Your task to perform on an android device: toggle sleep mode Image 0: 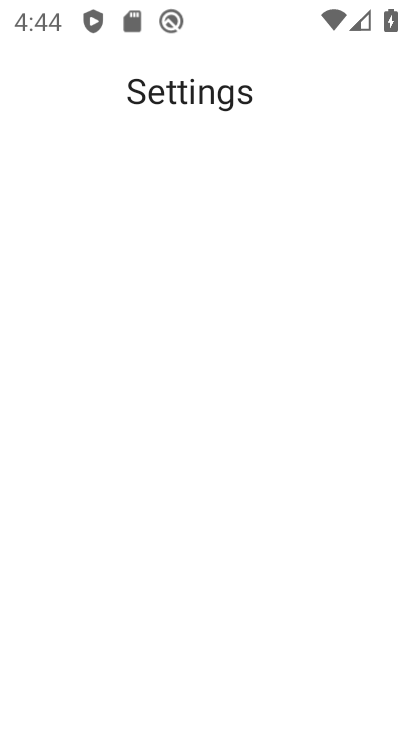
Step 0: click (95, 388)
Your task to perform on an android device: toggle sleep mode Image 1: 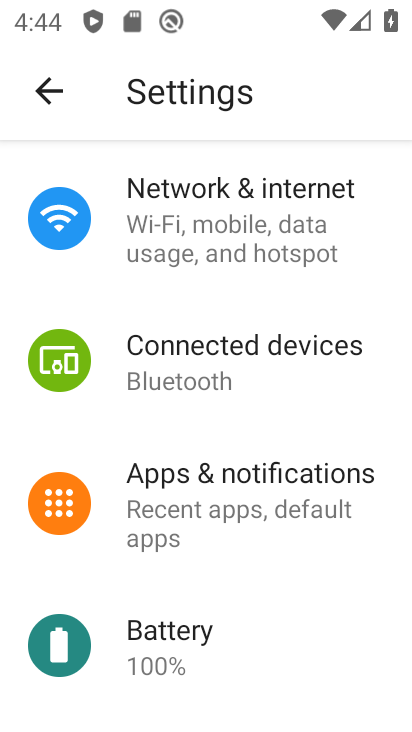
Step 1: drag from (279, 547) to (303, 183)
Your task to perform on an android device: toggle sleep mode Image 2: 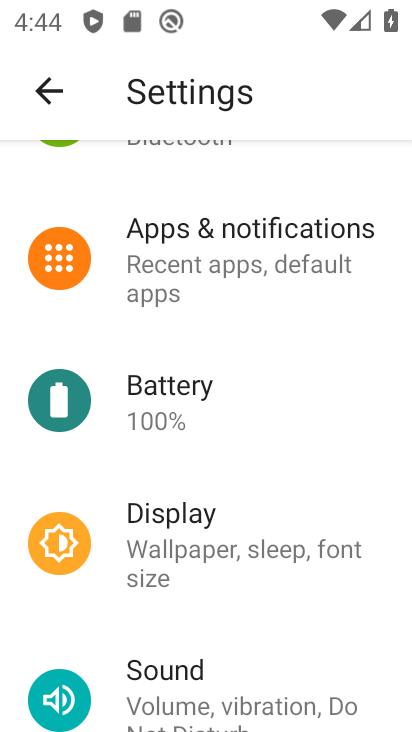
Step 2: click (246, 539)
Your task to perform on an android device: toggle sleep mode Image 3: 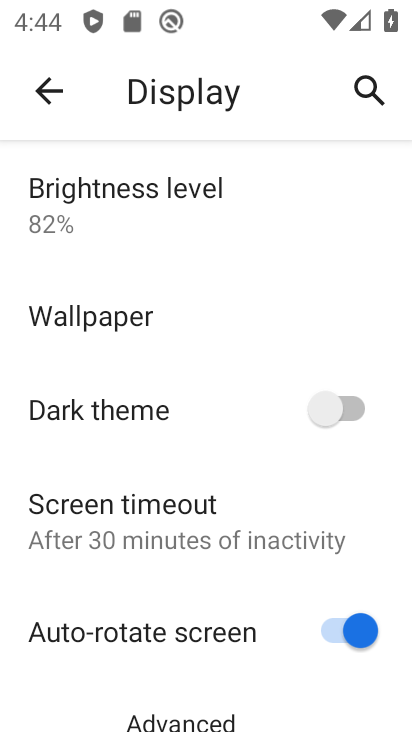
Step 3: drag from (261, 605) to (282, 155)
Your task to perform on an android device: toggle sleep mode Image 4: 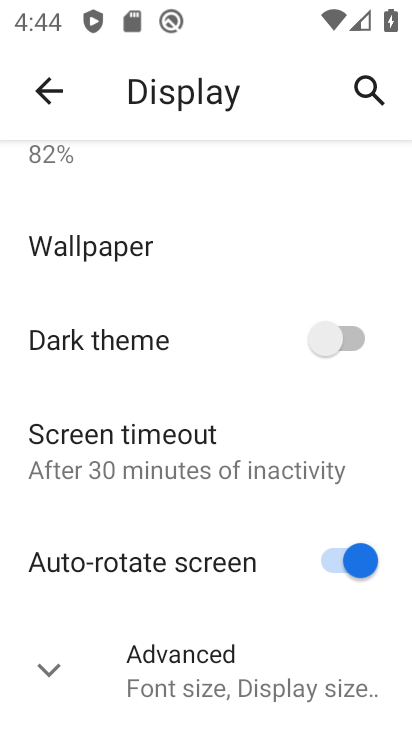
Step 4: click (47, 676)
Your task to perform on an android device: toggle sleep mode Image 5: 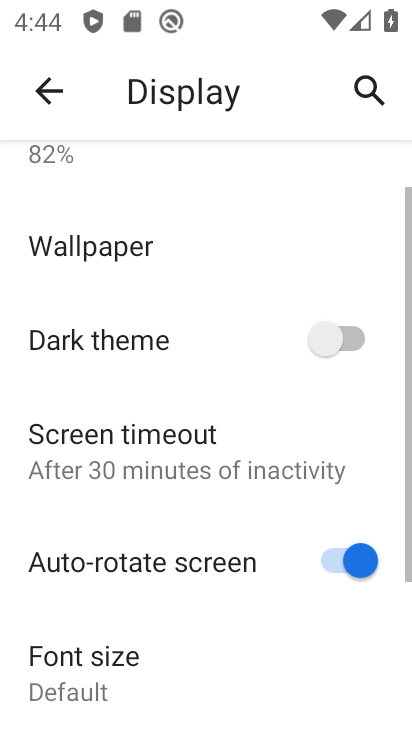
Step 5: task complete